Your task to perform on an android device: Open location settings Image 0: 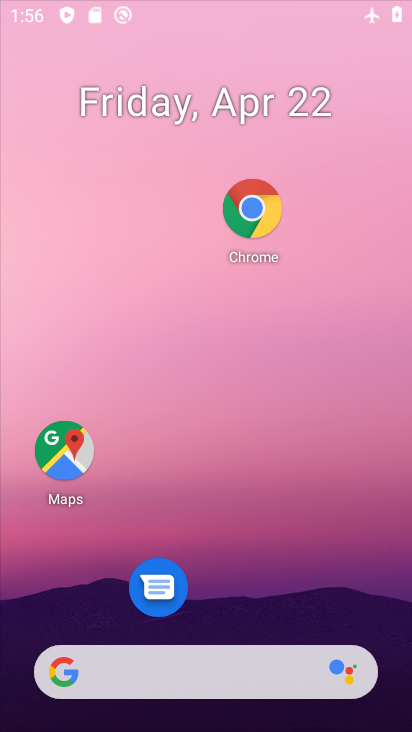
Step 0: drag from (230, 619) to (222, 237)
Your task to perform on an android device: Open location settings Image 1: 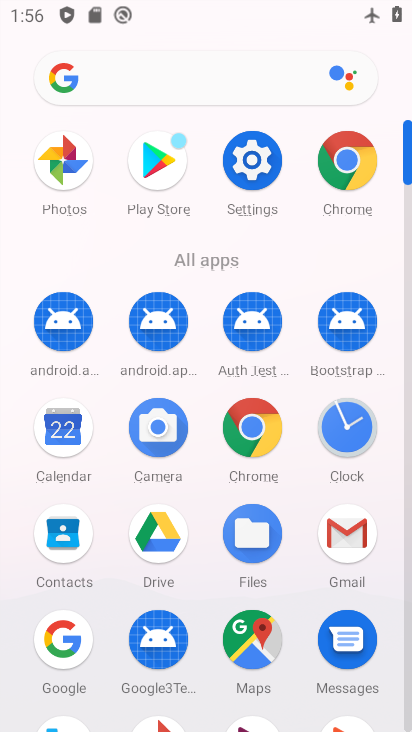
Step 1: click (241, 146)
Your task to perform on an android device: Open location settings Image 2: 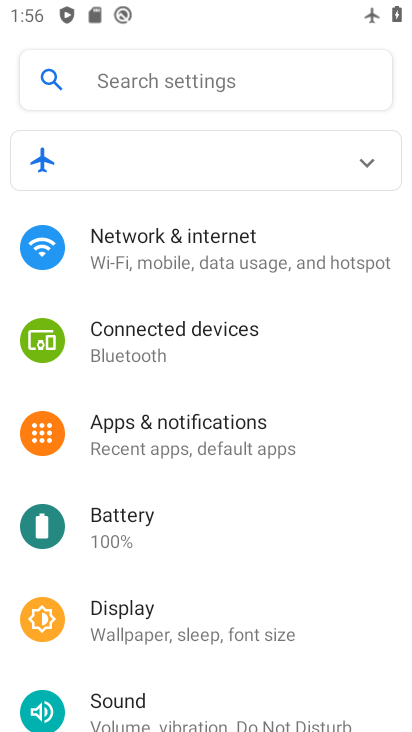
Step 2: drag from (262, 527) to (274, 188)
Your task to perform on an android device: Open location settings Image 3: 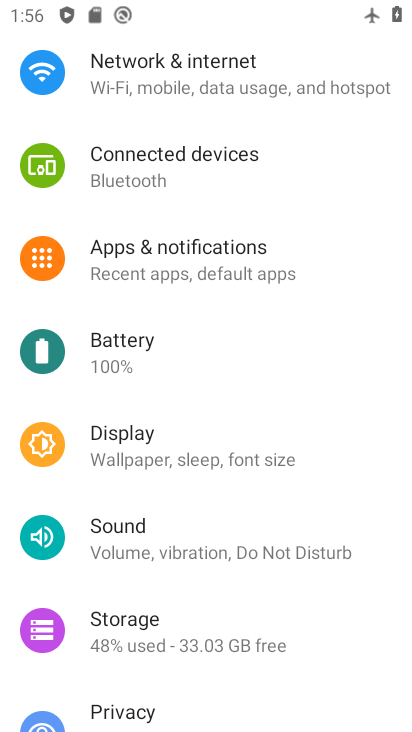
Step 3: drag from (230, 632) to (279, 240)
Your task to perform on an android device: Open location settings Image 4: 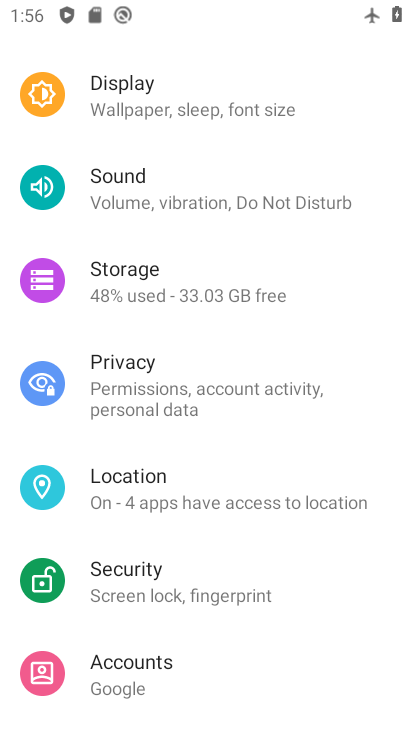
Step 4: click (202, 493)
Your task to perform on an android device: Open location settings Image 5: 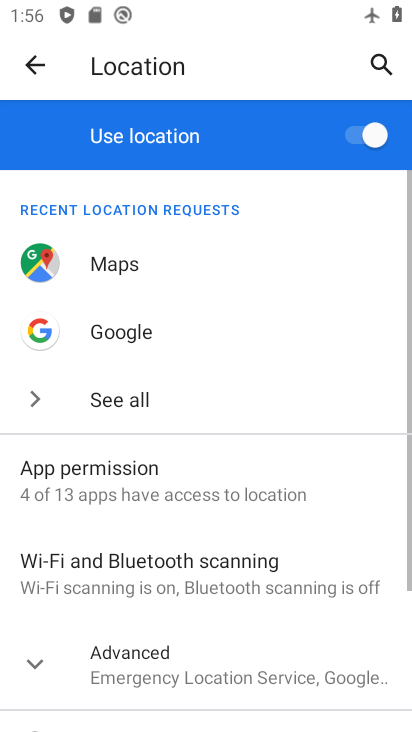
Step 5: task complete